Your task to perform on an android device: Open the map Image 0: 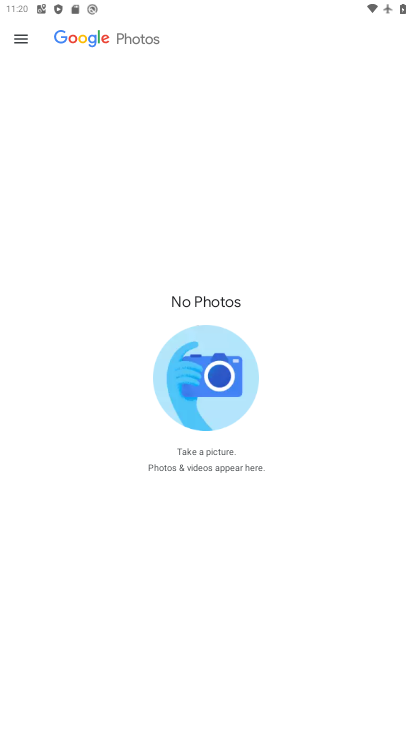
Step 0: press home button
Your task to perform on an android device: Open the map Image 1: 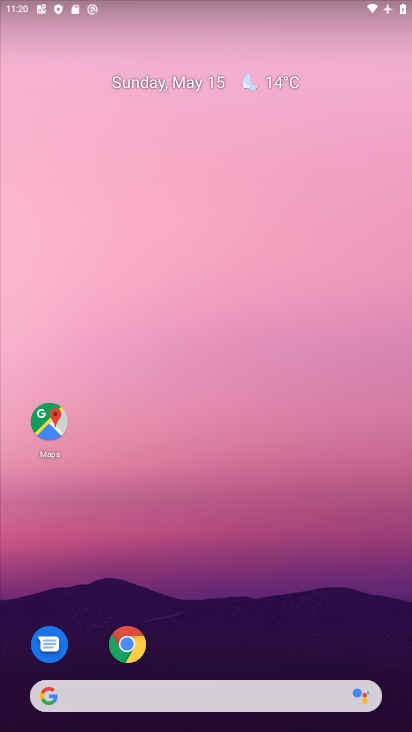
Step 1: click (41, 422)
Your task to perform on an android device: Open the map Image 2: 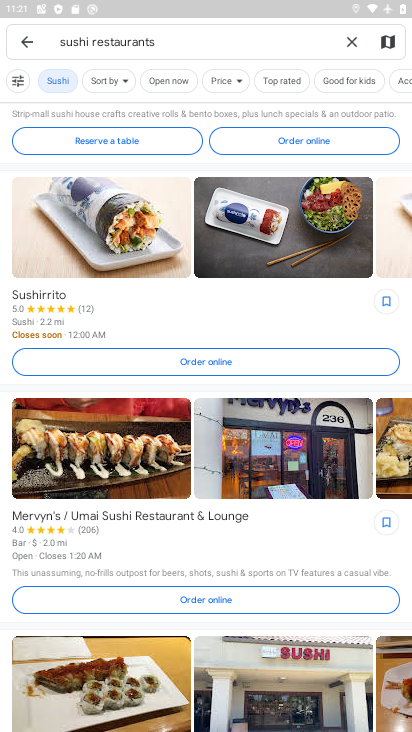
Step 2: task complete